Your task to perform on an android device: Go to battery settings Image 0: 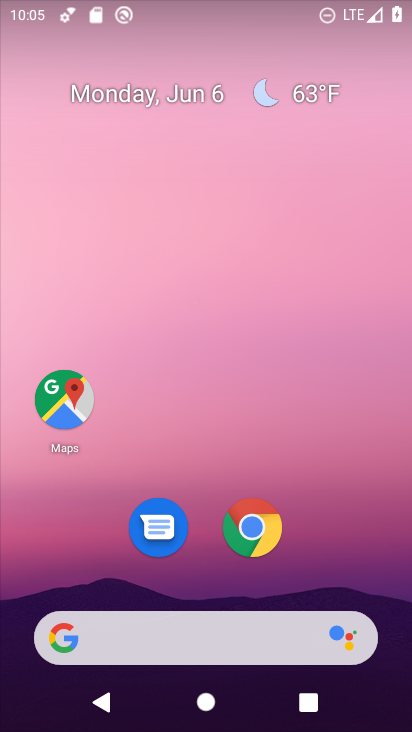
Step 0: drag from (347, 562) to (395, 148)
Your task to perform on an android device: Go to battery settings Image 1: 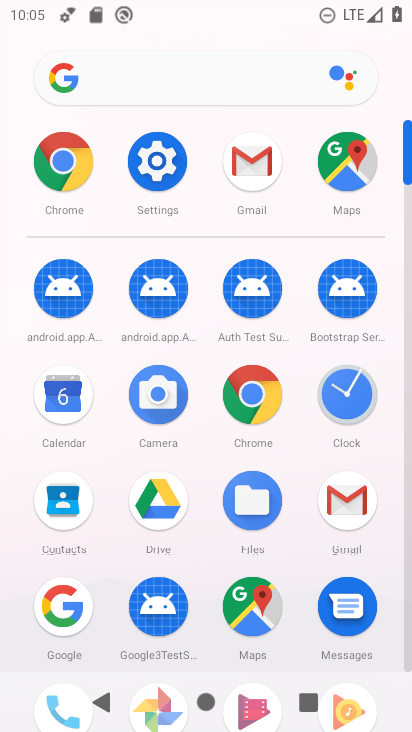
Step 1: click (165, 180)
Your task to perform on an android device: Go to battery settings Image 2: 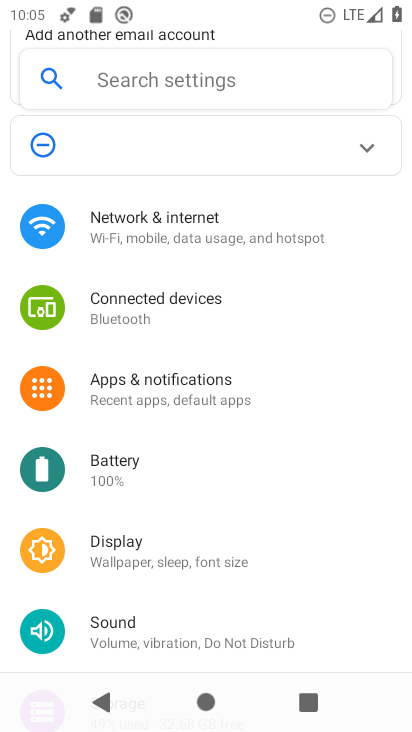
Step 2: drag from (342, 407) to (357, 312)
Your task to perform on an android device: Go to battery settings Image 3: 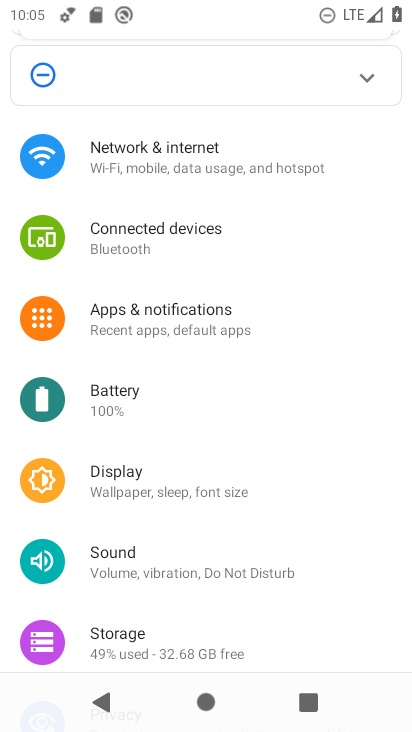
Step 3: drag from (337, 433) to (337, 357)
Your task to perform on an android device: Go to battery settings Image 4: 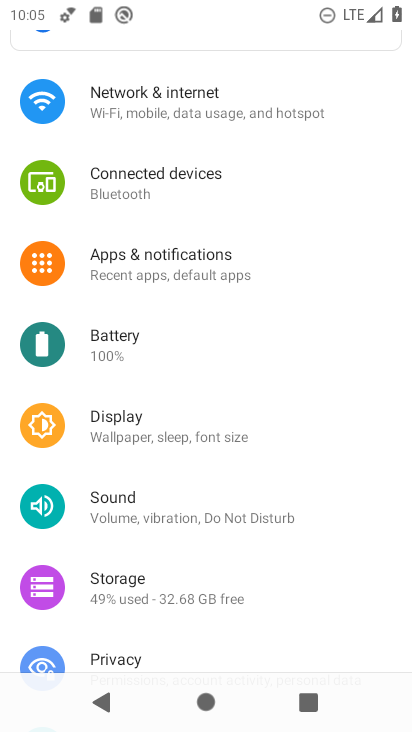
Step 4: drag from (348, 503) to (341, 418)
Your task to perform on an android device: Go to battery settings Image 5: 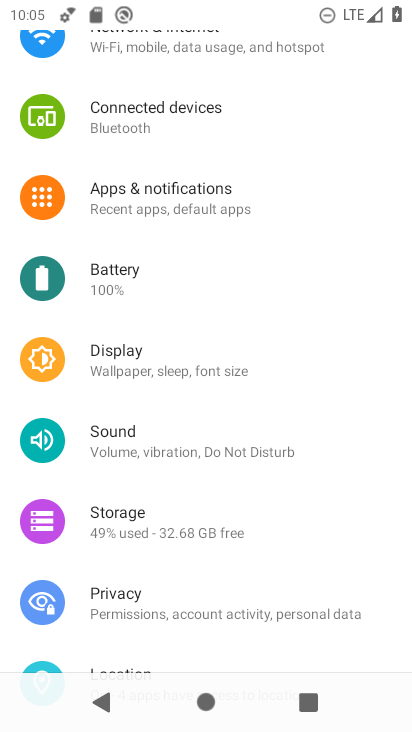
Step 5: drag from (340, 537) to (373, 374)
Your task to perform on an android device: Go to battery settings Image 6: 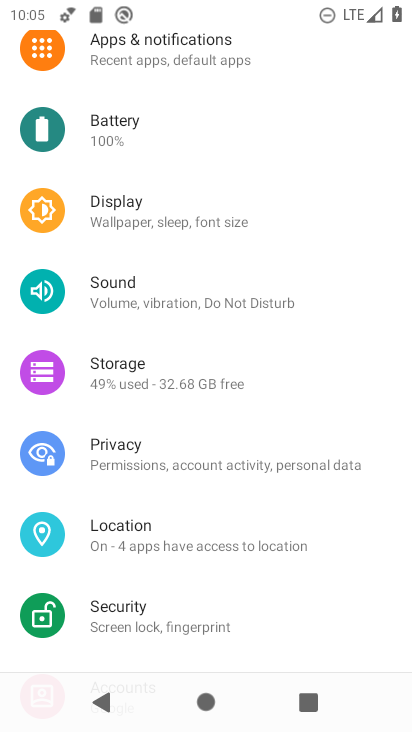
Step 6: drag from (325, 249) to (328, 351)
Your task to perform on an android device: Go to battery settings Image 7: 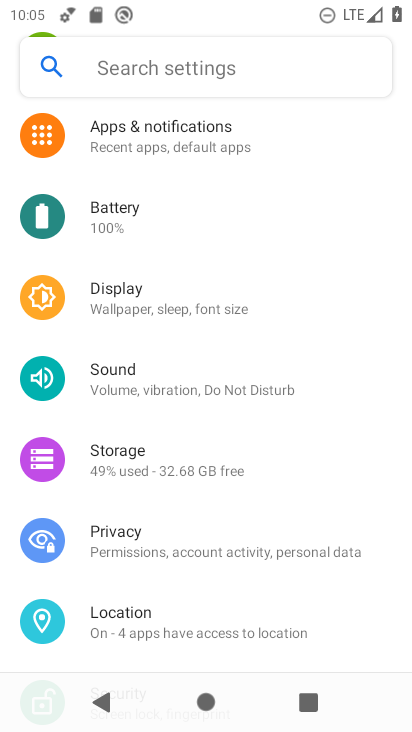
Step 7: drag from (337, 198) to (355, 340)
Your task to perform on an android device: Go to battery settings Image 8: 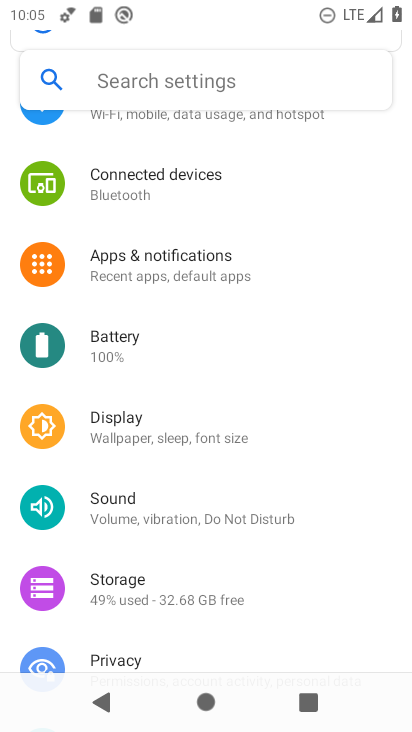
Step 8: click (146, 362)
Your task to perform on an android device: Go to battery settings Image 9: 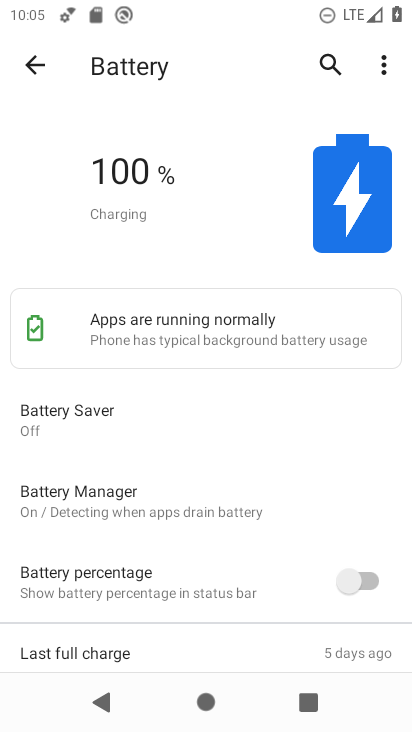
Step 9: task complete